Your task to perform on an android device: turn off improve location accuracy Image 0: 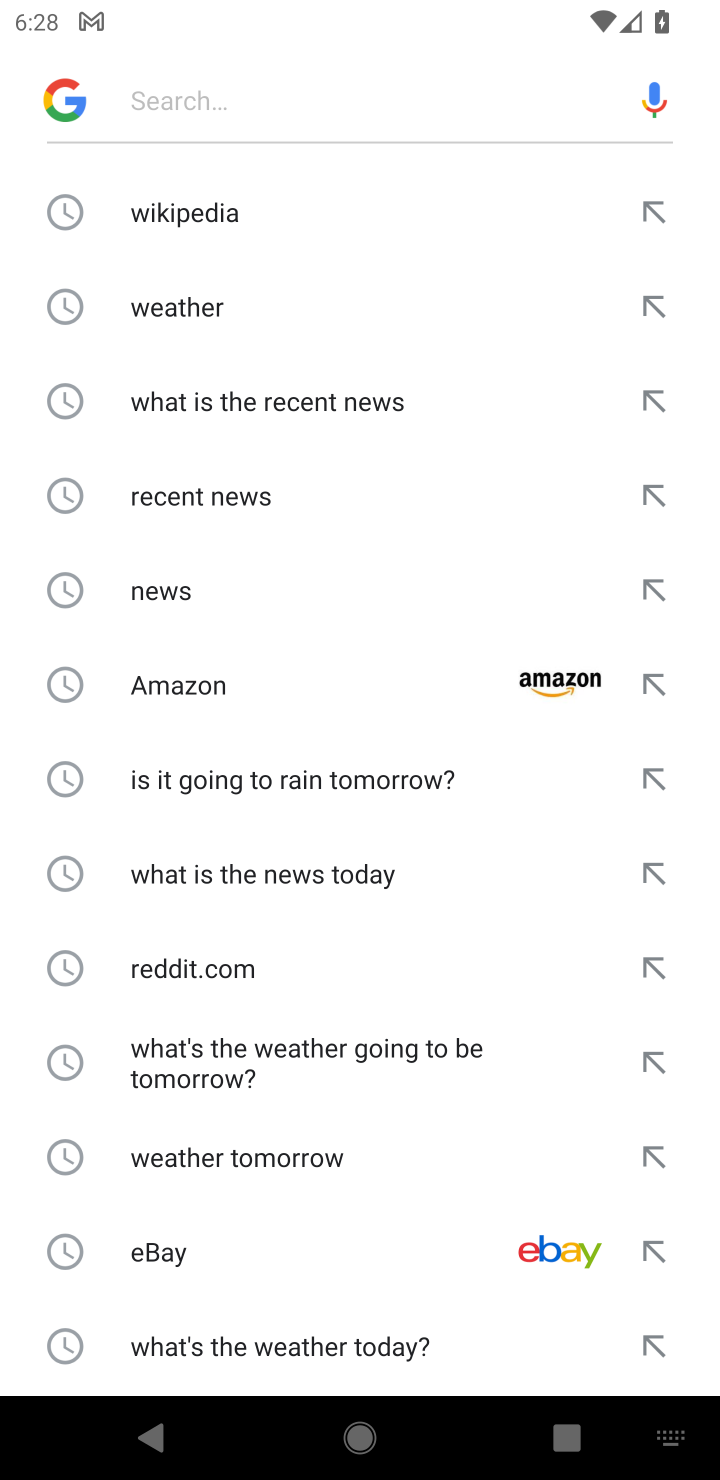
Step 0: press home button
Your task to perform on an android device: turn off improve location accuracy Image 1: 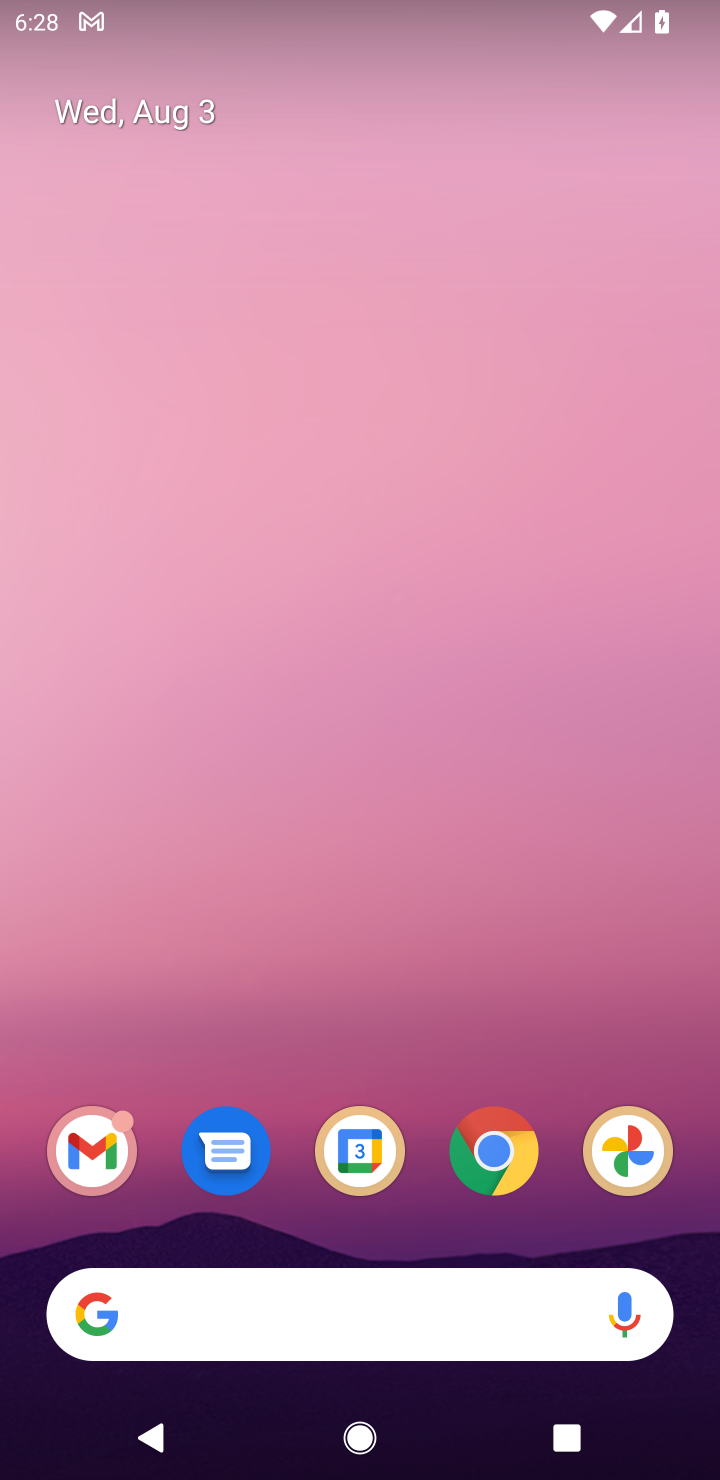
Step 1: drag from (269, 1049) to (195, 174)
Your task to perform on an android device: turn off improve location accuracy Image 2: 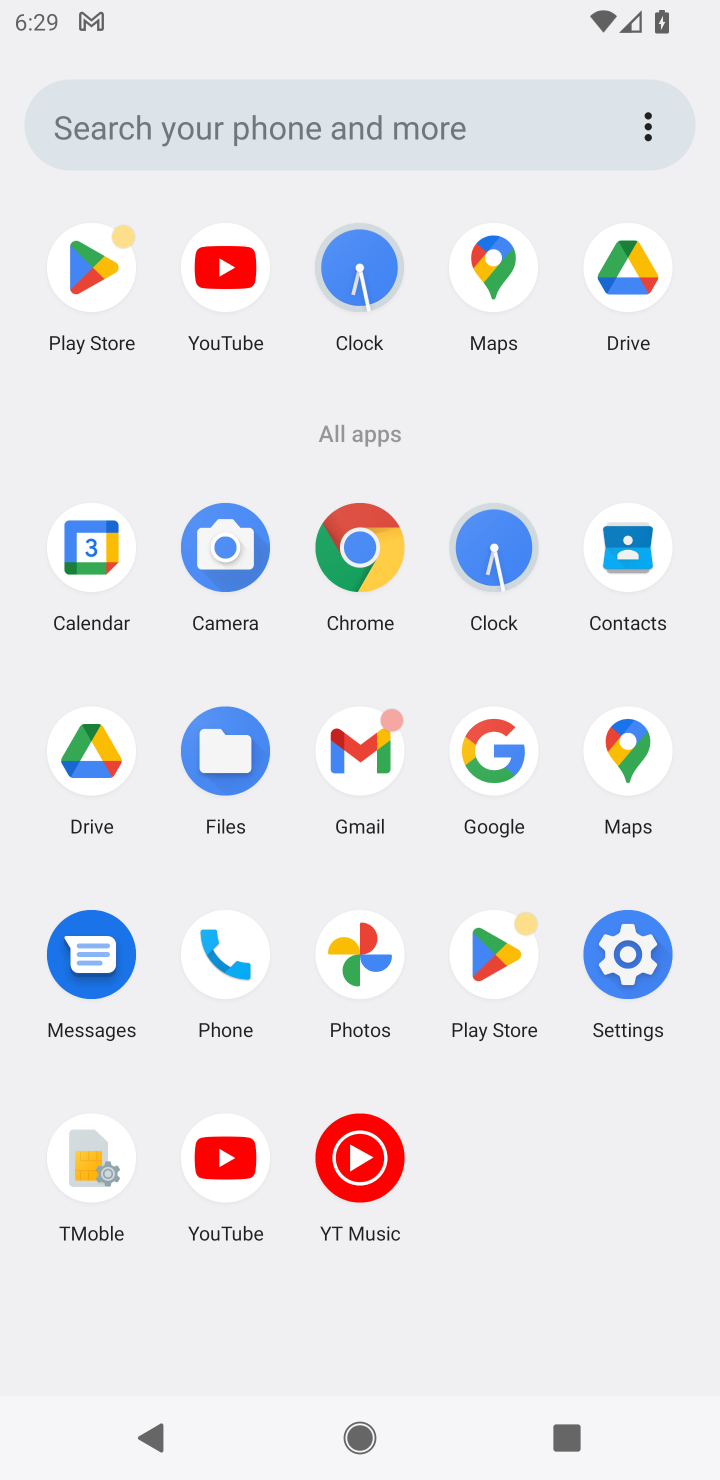
Step 2: click (625, 951)
Your task to perform on an android device: turn off improve location accuracy Image 3: 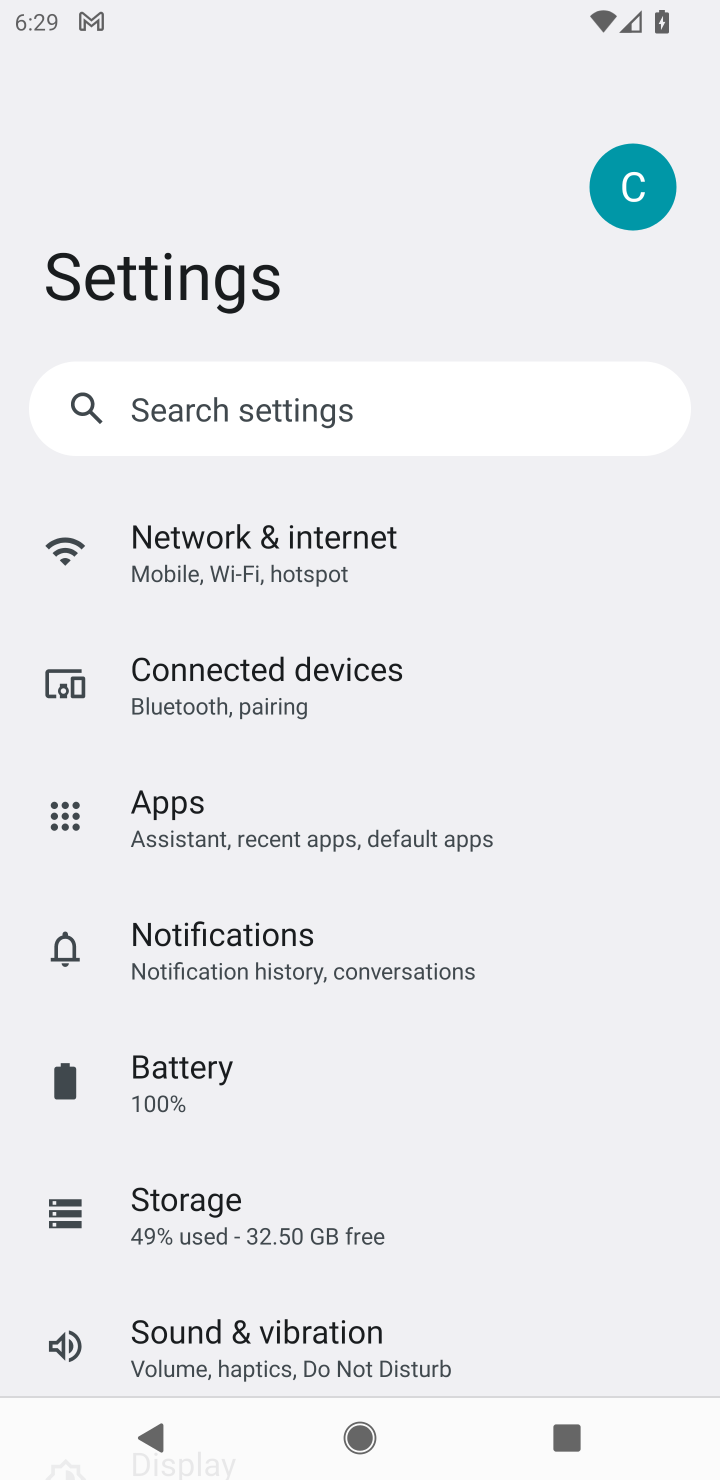
Step 3: drag from (486, 1198) to (364, 844)
Your task to perform on an android device: turn off improve location accuracy Image 4: 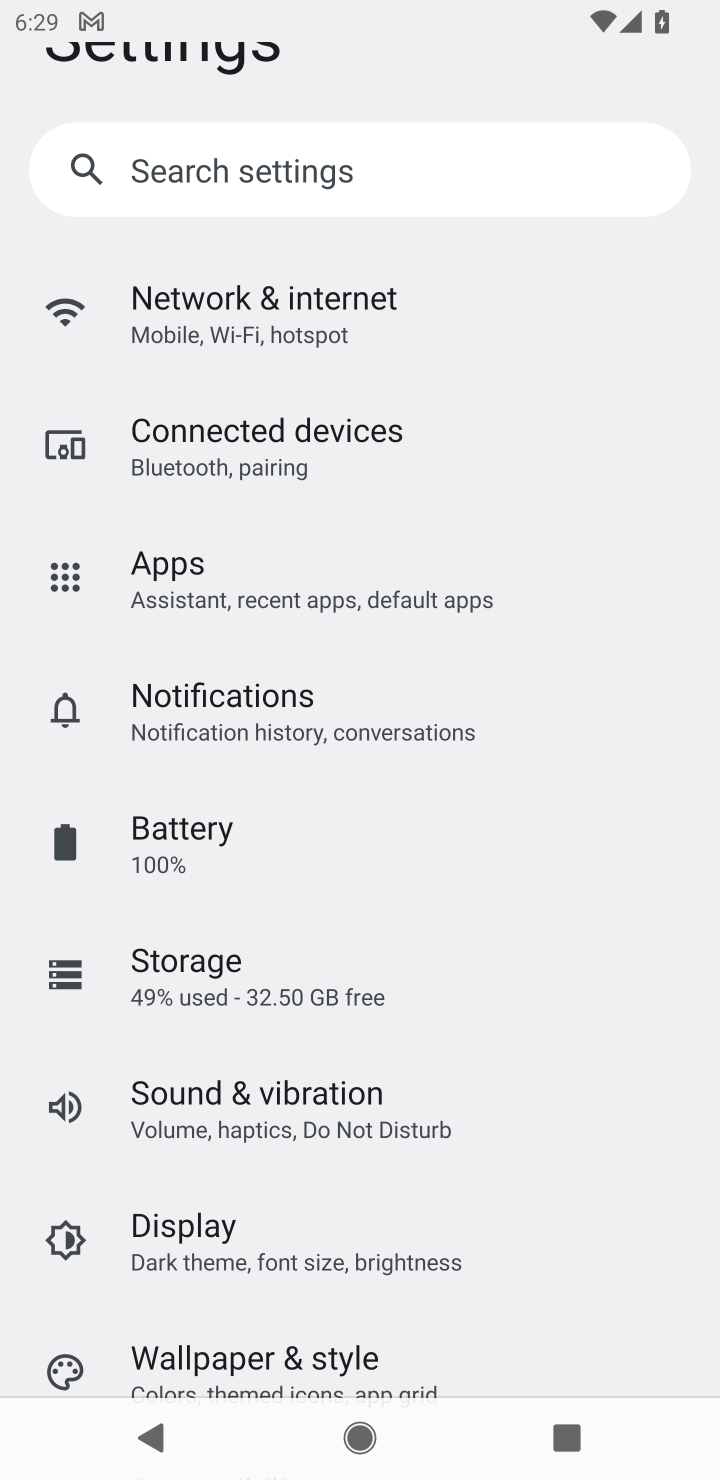
Step 4: drag from (475, 1205) to (465, 729)
Your task to perform on an android device: turn off improve location accuracy Image 5: 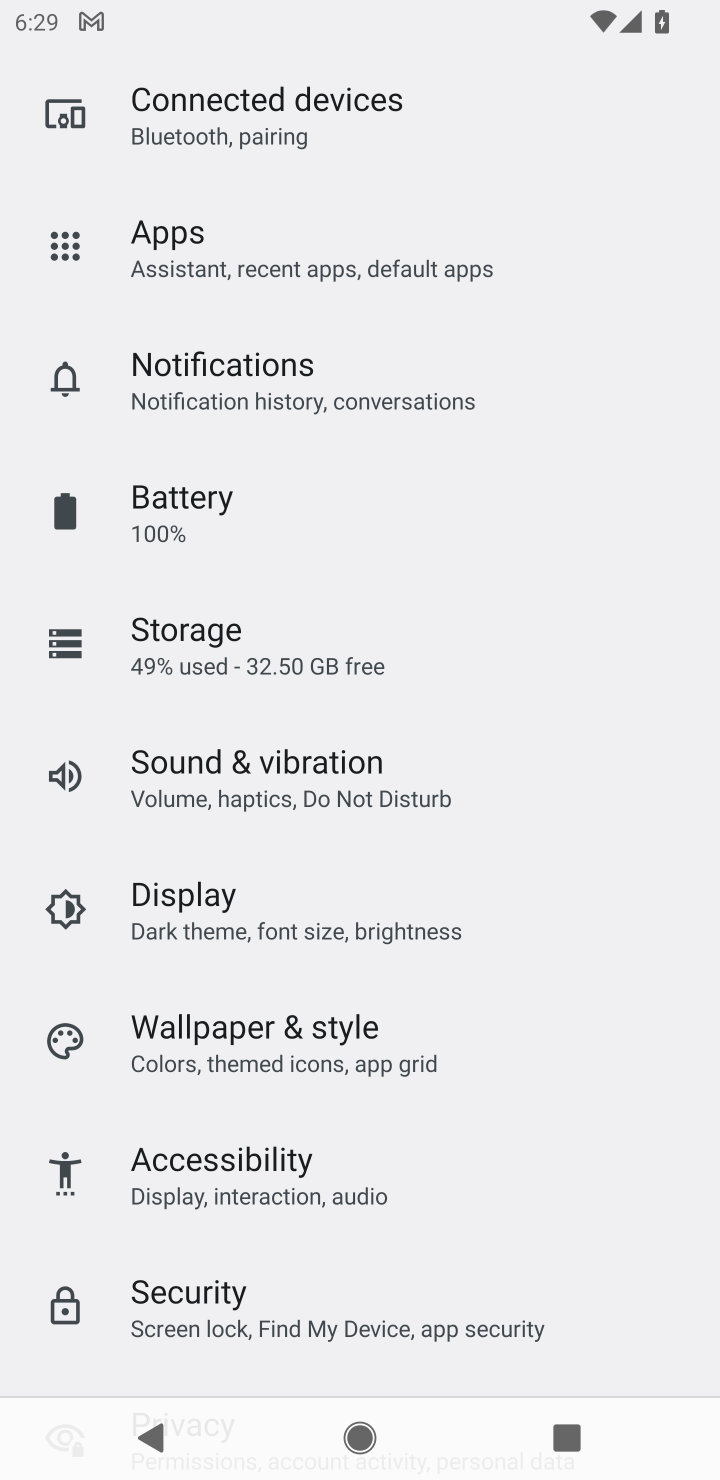
Step 5: drag from (355, 1253) to (312, 494)
Your task to perform on an android device: turn off improve location accuracy Image 6: 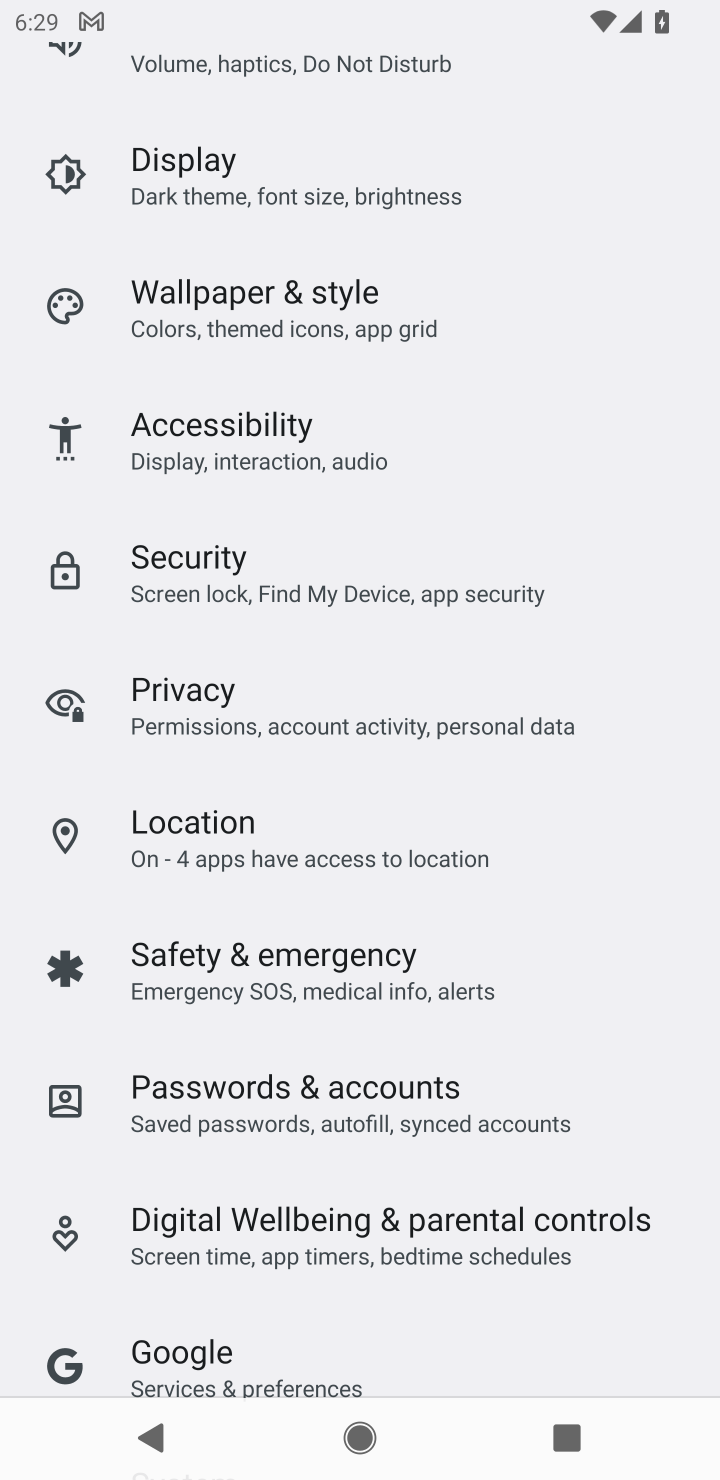
Step 6: click (264, 855)
Your task to perform on an android device: turn off improve location accuracy Image 7: 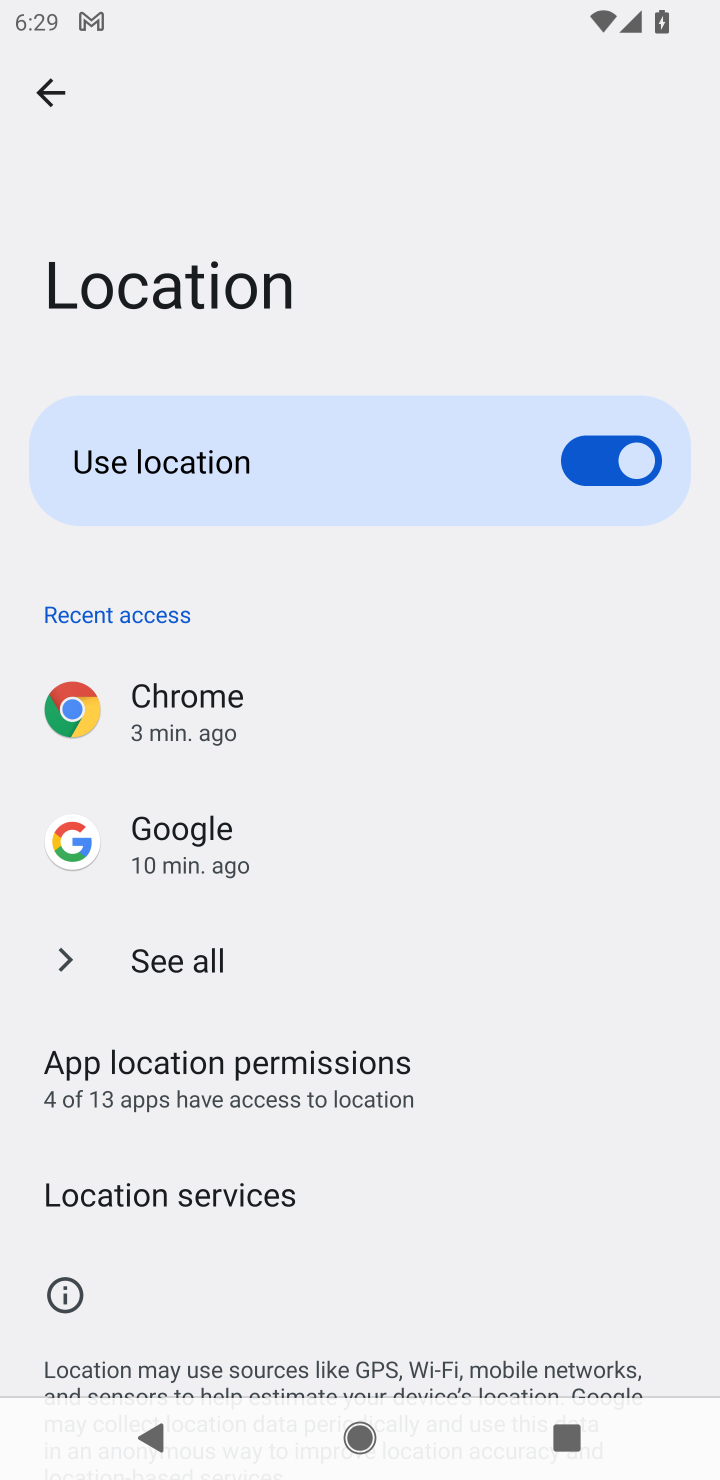
Step 7: click (207, 1179)
Your task to perform on an android device: turn off improve location accuracy Image 8: 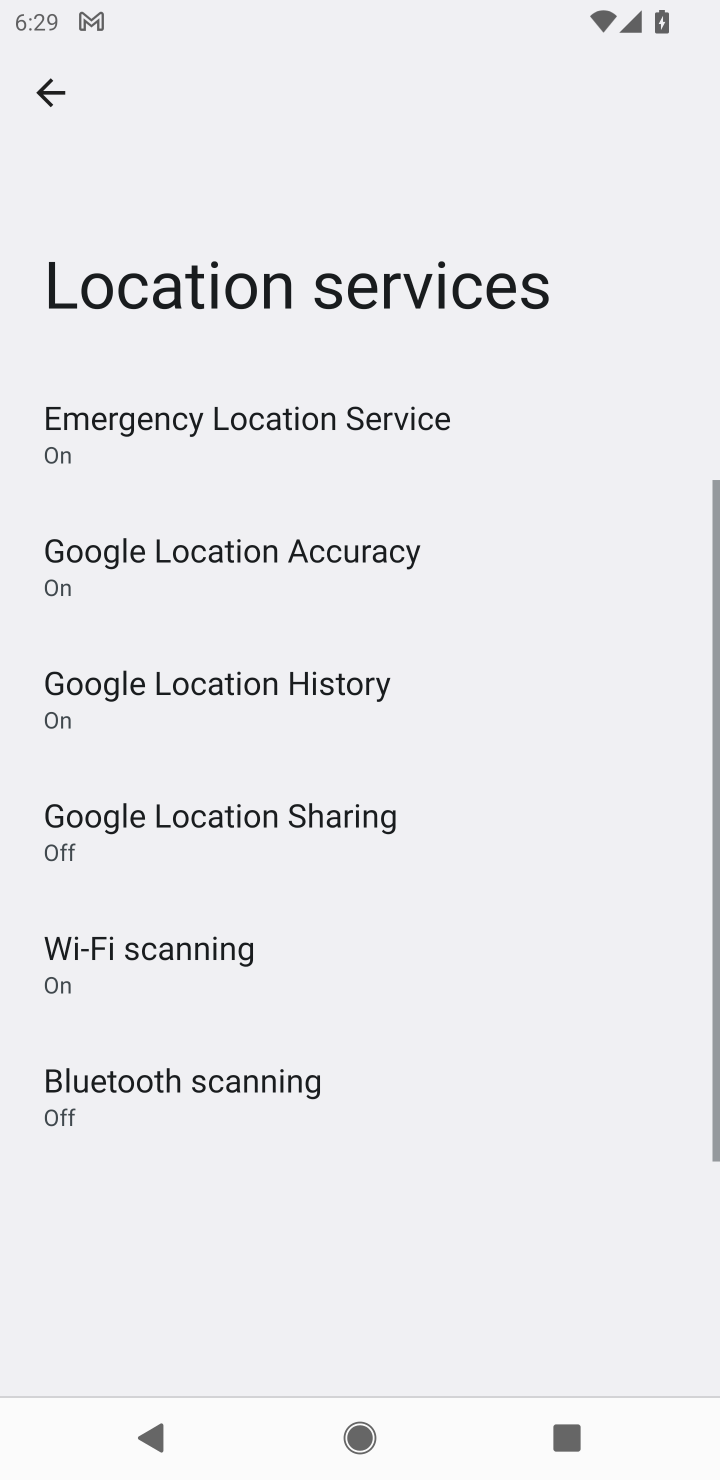
Step 8: click (336, 582)
Your task to perform on an android device: turn off improve location accuracy Image 9: 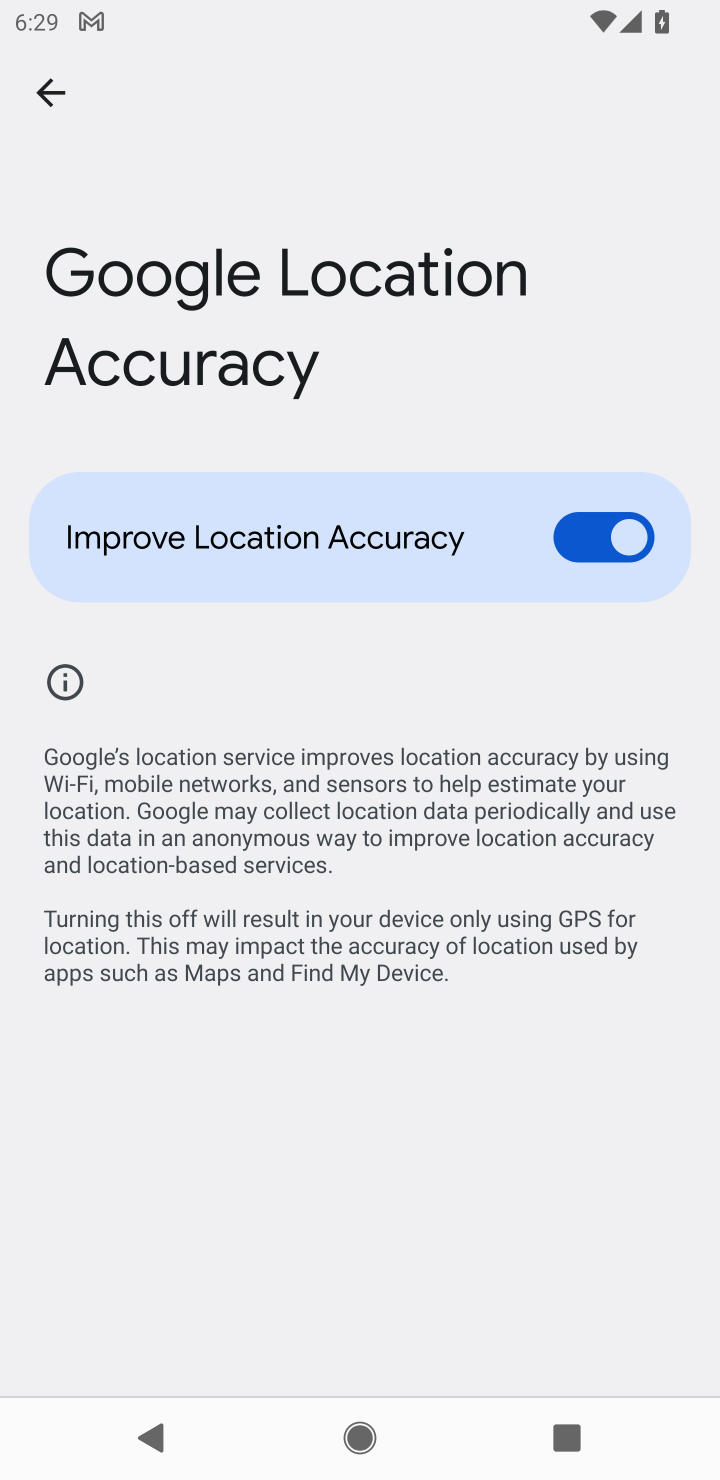
Step 9: click (612, 531)
Your task to perform on an android device: turn off improve location accuracy Image 10: 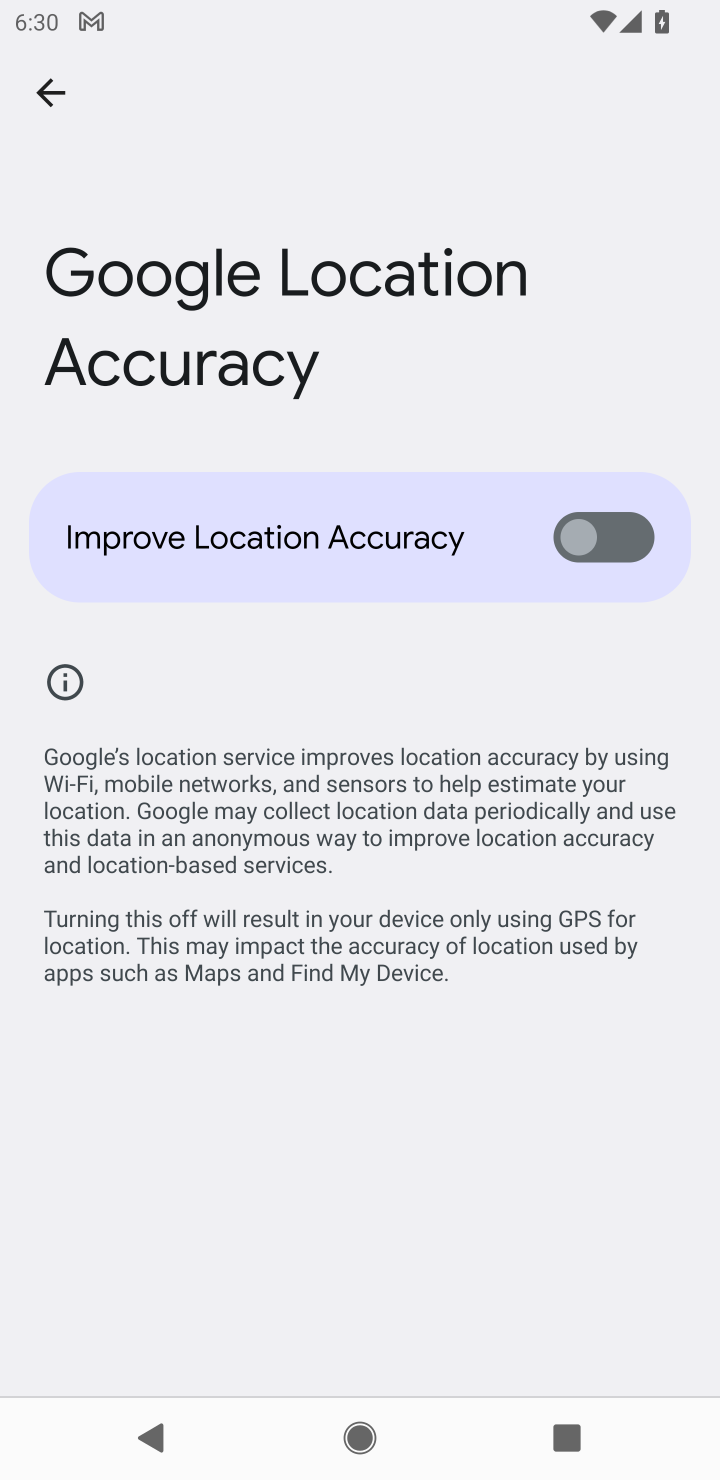
Step 10: task complete